Your task to perform on an android device: toggle show notifications on the lock screen Image 0: 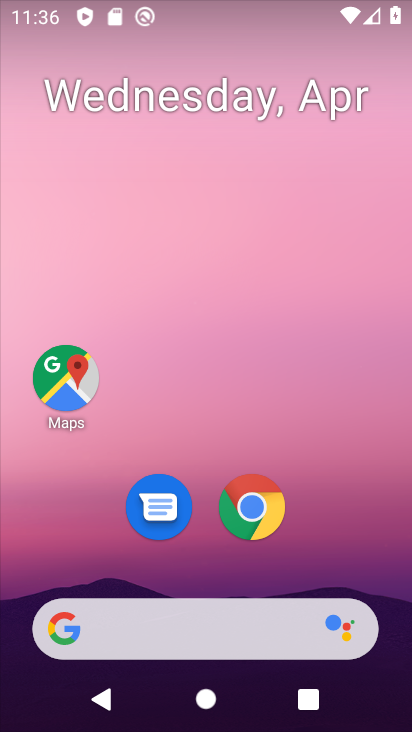
Step 0: drag from (360, 556) to (257, 80)
Your task to perform on an android device: toggle show notifications on the lock screen Image 1: 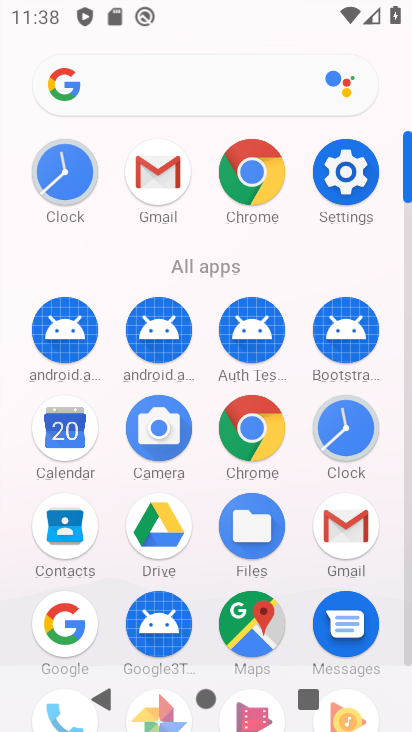
Step 1: click (332, 153)
Your task to perform on an android device: toggle show notifications on the lock screen Image 2: 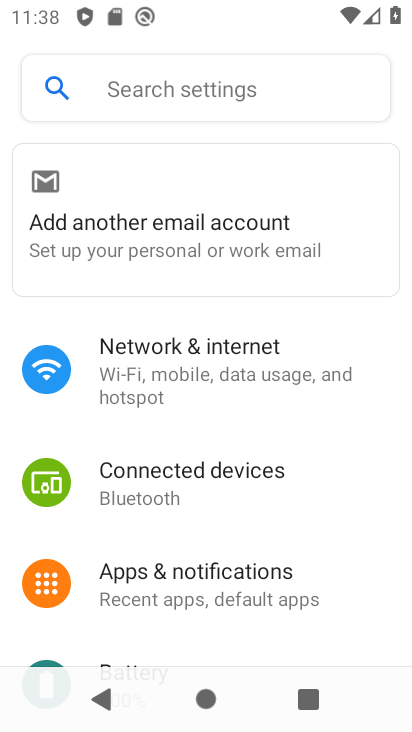
Step 2: click (256, 573)
Your task to perform on an android device: toggle show notifications on the lock screen Image 3: 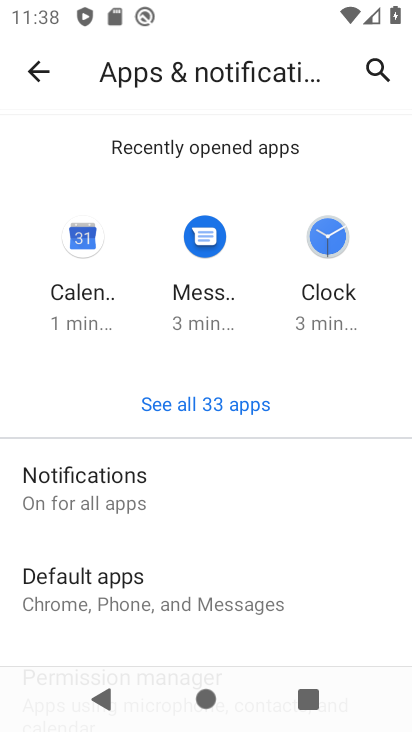
Step 3: click (182, 490)
Your task to perform on an android device: toggle show notifications on the lock screen Image 4: 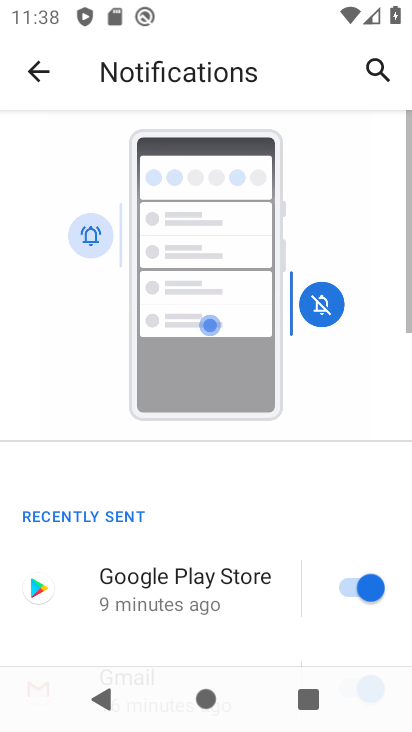
Step 4: drag from (159, 615) to (256, 111)
Your task to perform on an android device: toggle show notifications on the lock screen Image 5: 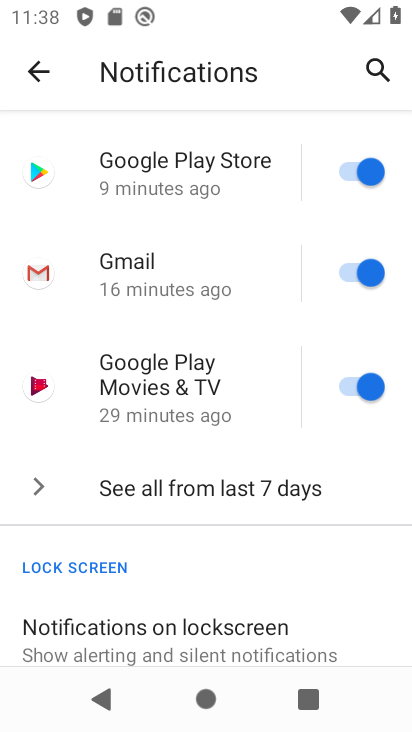
Step 5: click (191, 636)
Your task to perform on an android device: toggle show notifications on the lock screen Image 6: 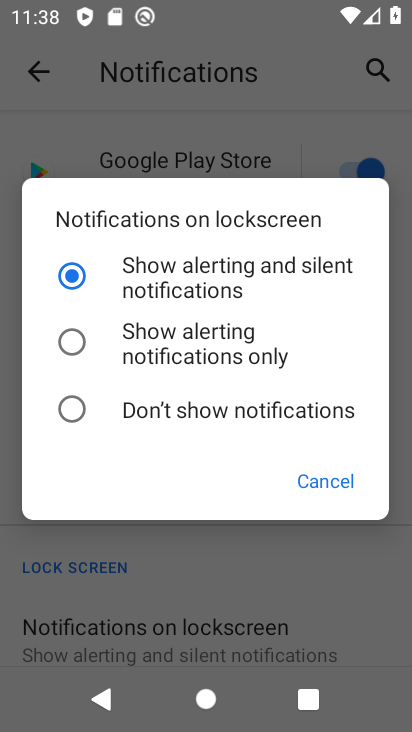
Step 6: click (164, 358)
Your task to perform on an android device: toggle show notifications on the lock screen Image 7: 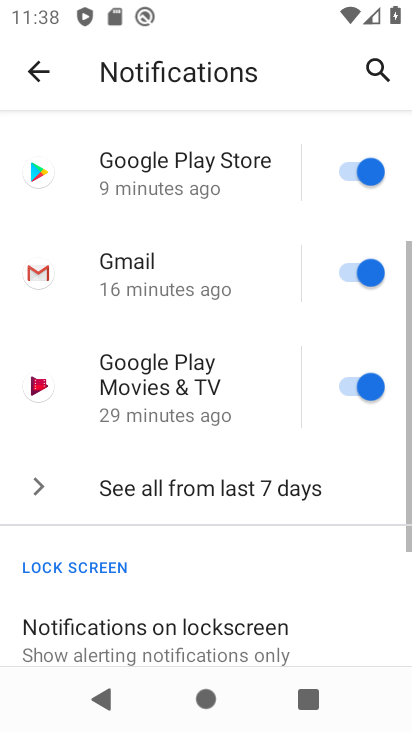
Step 7: task complete